Your task to perform on an android device: check the backup settings in the google photos Image 0: 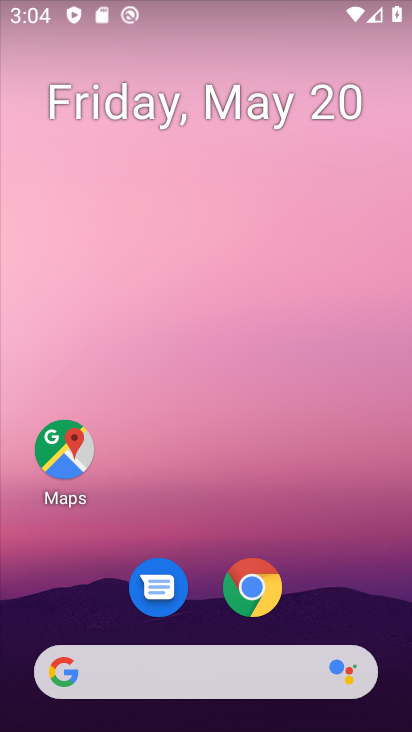
Step 0: drag from (351, 601) to (335, 97)
Your task to perform on an android device: check the backup settings in the google photos Image 1: 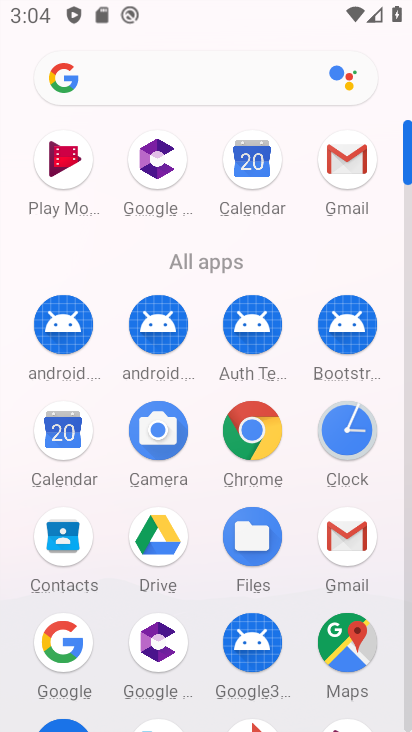
Step 1: click (410, 697)
Your task to perform on an android device: check the backup settings in the google photos Image 2: 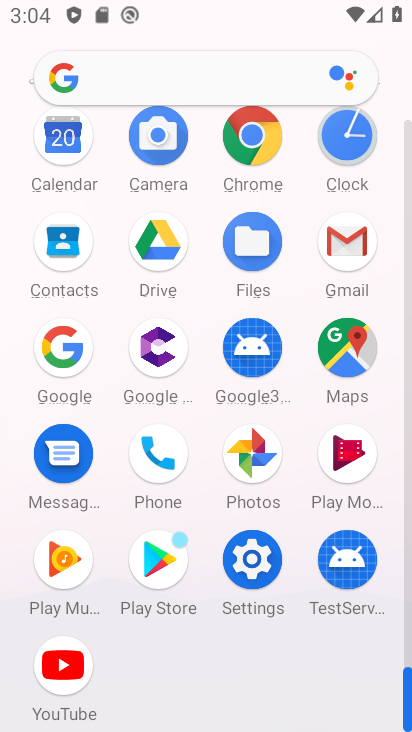
Step 2: click (259, 464)
Your task to perform on an android device: check the backup settings in the google photos Image 3: 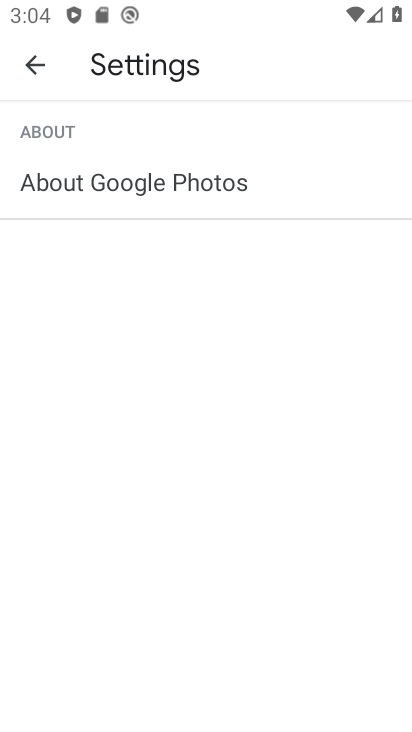
Step 3: click (33, 65)
Your task to perform on an android device: check the backup settings in the google photos Image 4: 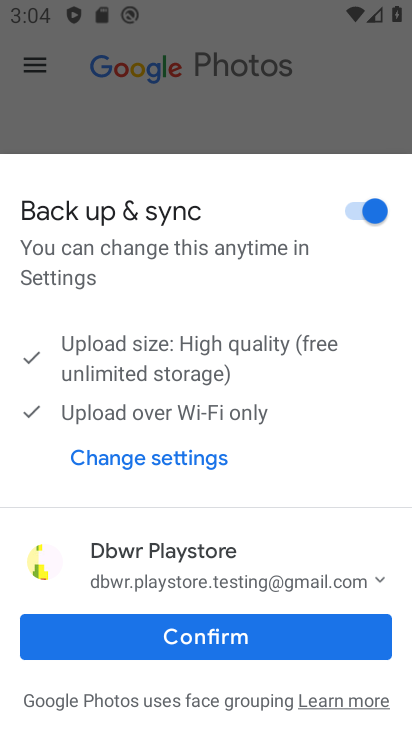
Step 4: click (121, 626)
Your task to perform on an android device: check the backup settings in the google photos Image 5: 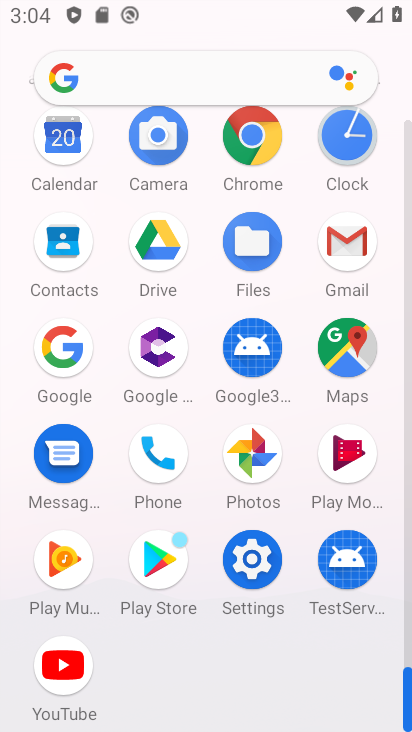
Step 5: click (245, 462)
Your task to perform on an android device: check the backup settings in the google photos Image 6: 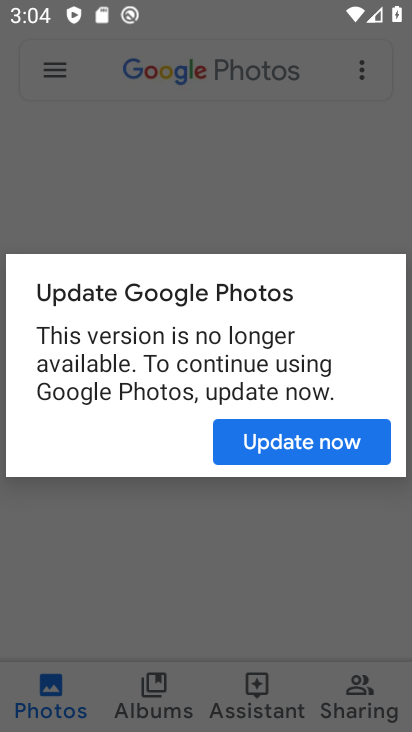
Step 6: click (250, 456)
Your task to perform on an android device: check the backup settings in the google photos Image 7: 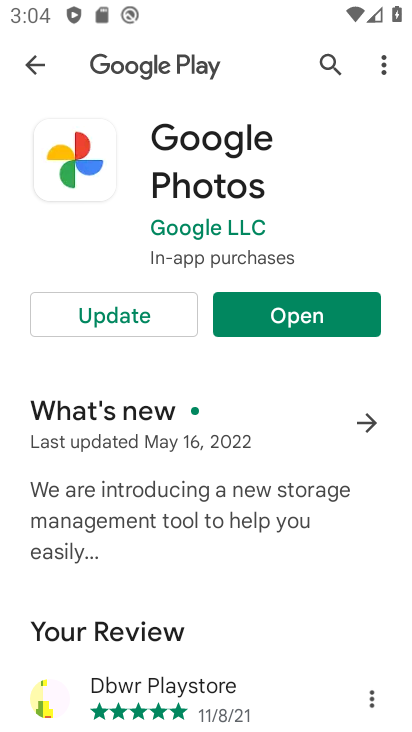
Step 7: click (132, 301)
Your task to perform on an android device: check the backup settings in the google photos Image 8: 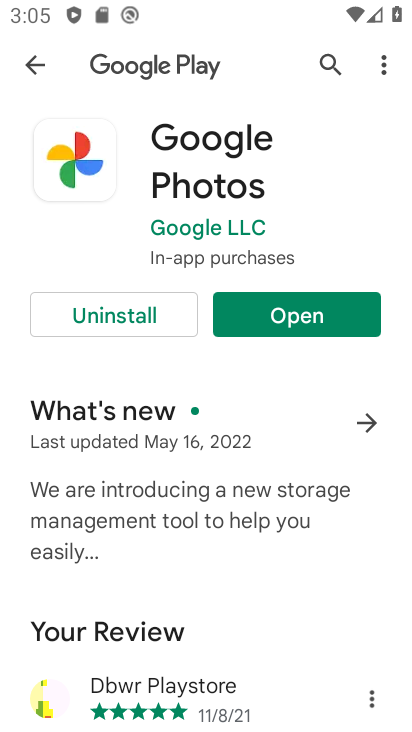
Step 8: click (305, 324)
Your task to perform on an android device: check the backup settings in the google photos Image 9: 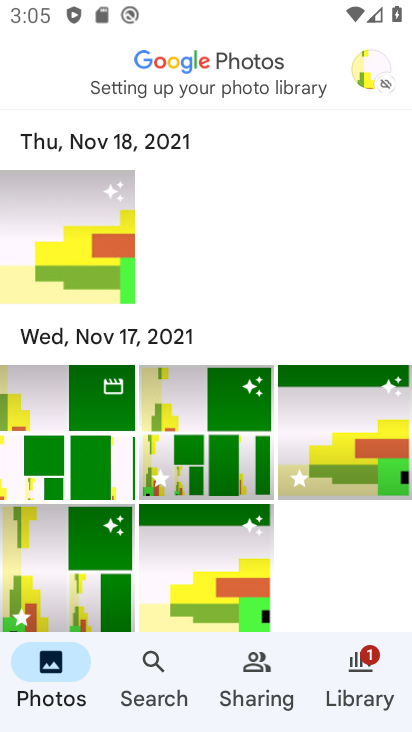
Step 9: click (360, 70)
Your task to perform on an android device: check the backup settings in the google photos Image 10: 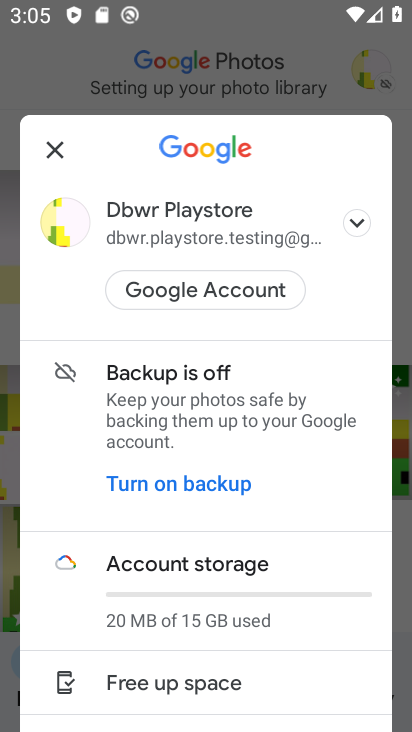
Step 10: click (158, 430)
Your task to perform on an android device: check the backup settings in the google photos Image 11: 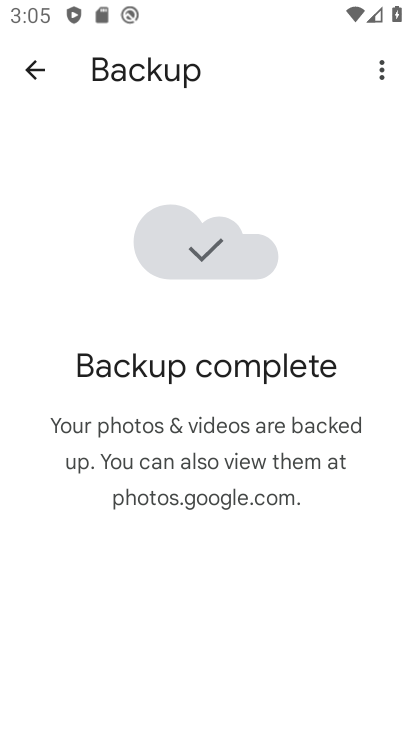
Step 11: task complete